Your task to perform on an android device: open chrome privacy settings Image 0: 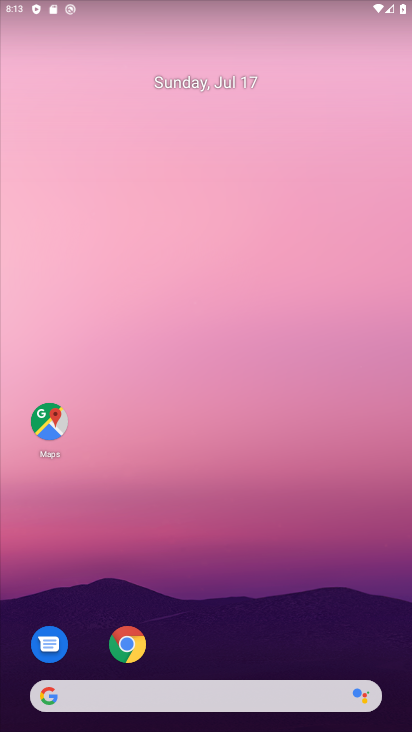
Step 0: drag from (248, 173) to (223, 39)
Your task to perform on an android device: open chrome privacy settings Image 1: 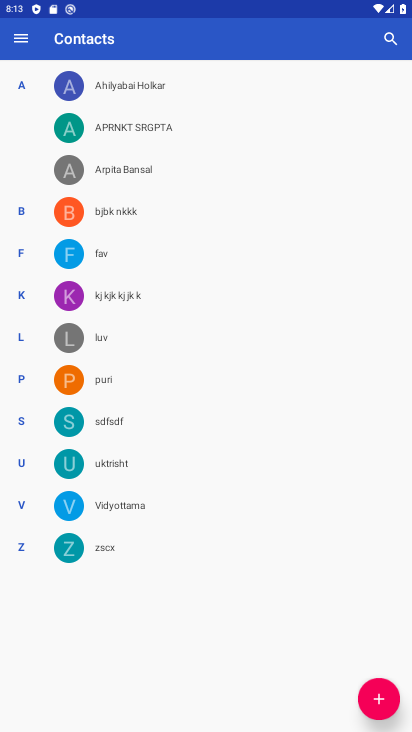
Step 1: task complete